Your task to perform on an android device: turn off translation in the chrome app Image 0: 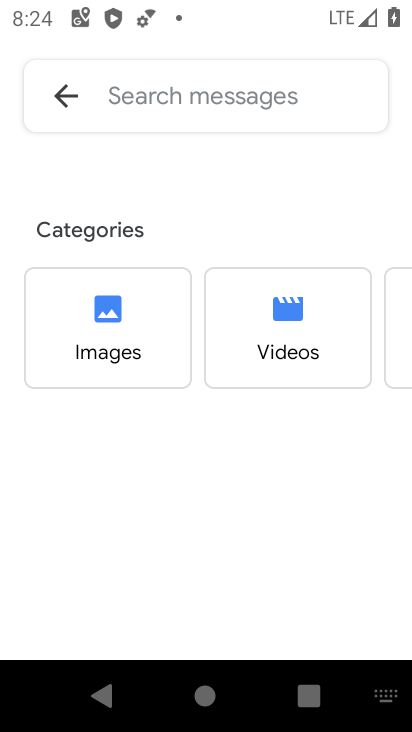
Step 0: press home button
Your task to perform on an android device: turn off translation in the chrome app Image 1: 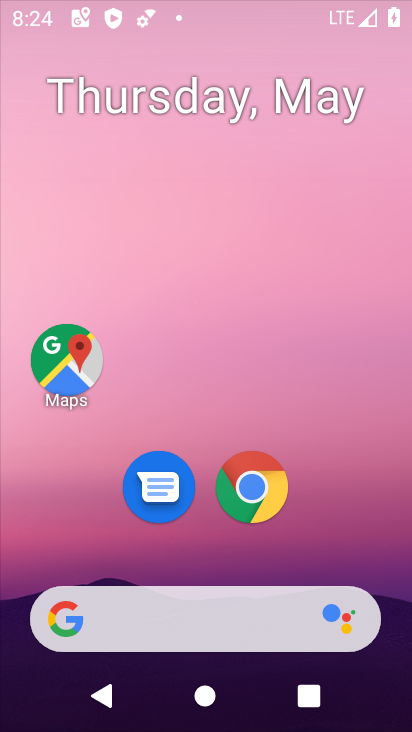
Step 1: drag from (186, 574) to (275, 106)
Your task to perform on an android device: turn off translation in the chrome app Image 2: 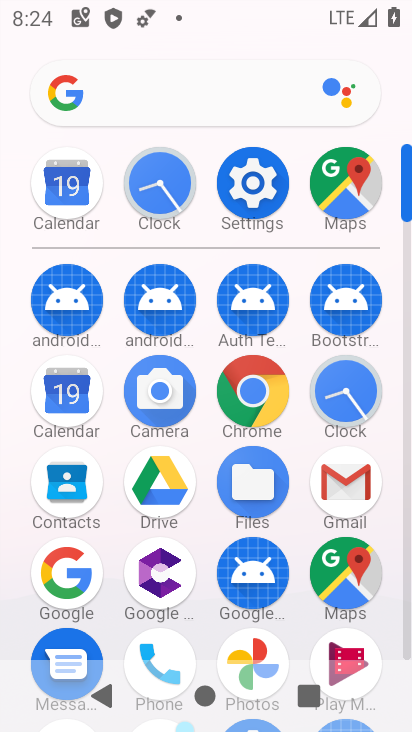
Step 2: click (247, 384)
Your task to perform on an android device: turn off translation in the chrome app Image 3: 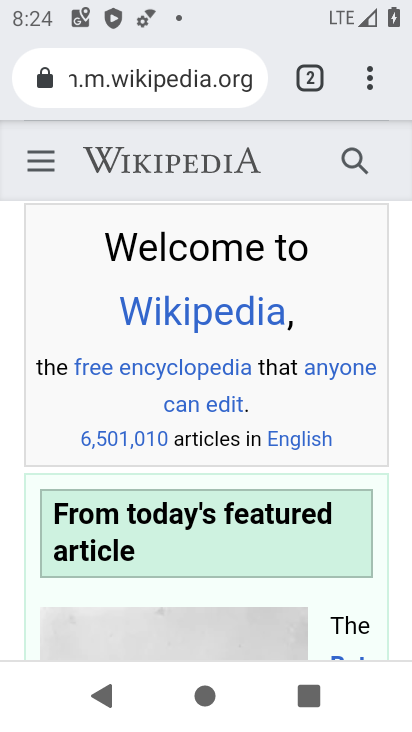
Step 3: drag from (218, 425) to (409, 110)
Your task to perform on an android device: turn off translation in the chrome app Image 4: 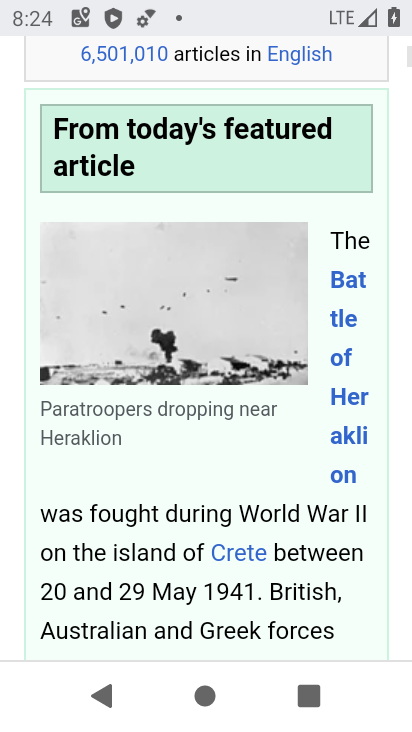
Step 4: click (370, 72)
Your task to perform on an android device: turn off translation in the chrome app Image 5: 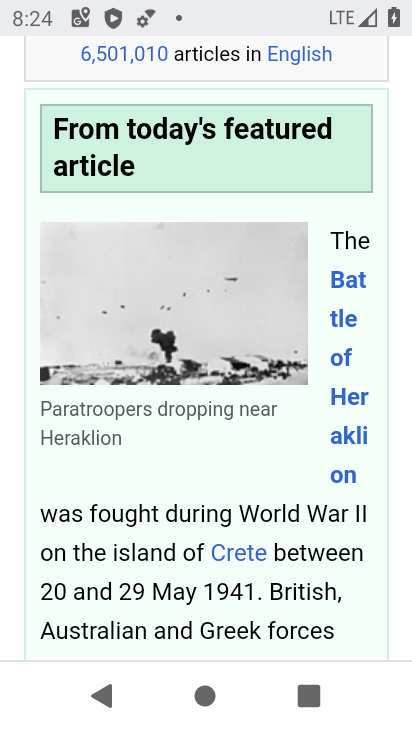
Step 5: drag from (369, 87) to (376, 514)
Your task to perform on an android device: turn off translation in the chrome app Image 6: 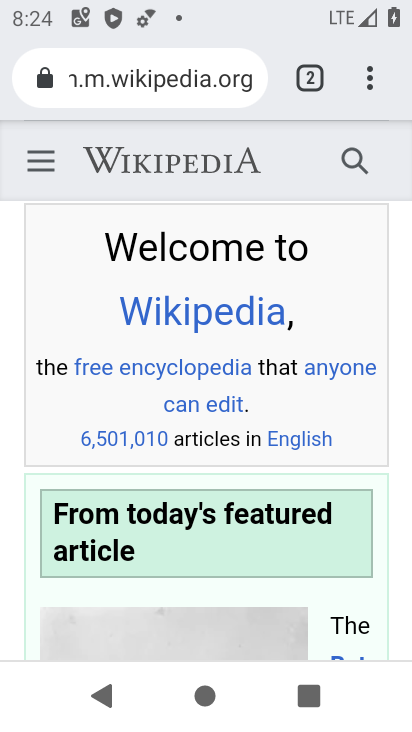
Step 6: click (377, 74)
Your task to perform on an android device: turn off translation in the chrome app Image 7: 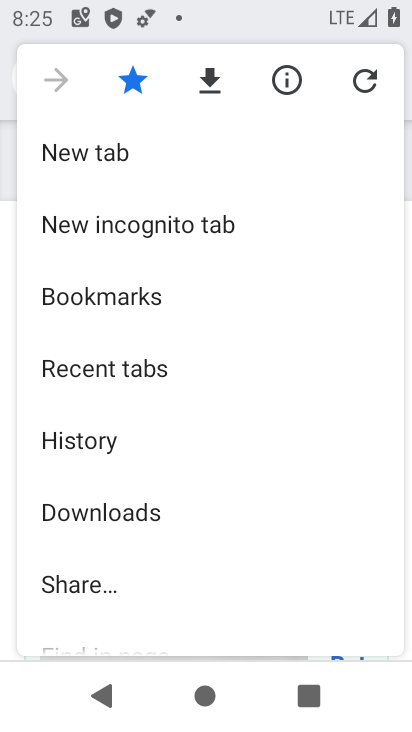
Step 7: drag from (145, 360) to (267, 60)
Your task to perform on an android device: turn off translation in the chrome app Image 8: 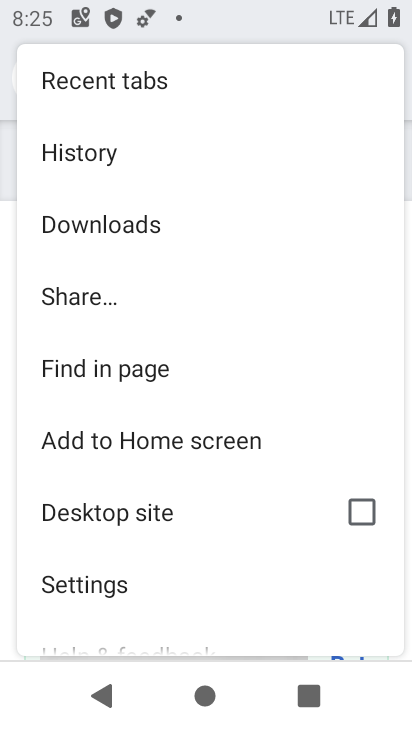
Step 8: click (117, 595)
Your task to perform on an android device: turn off translation in the chrome app Image 9: 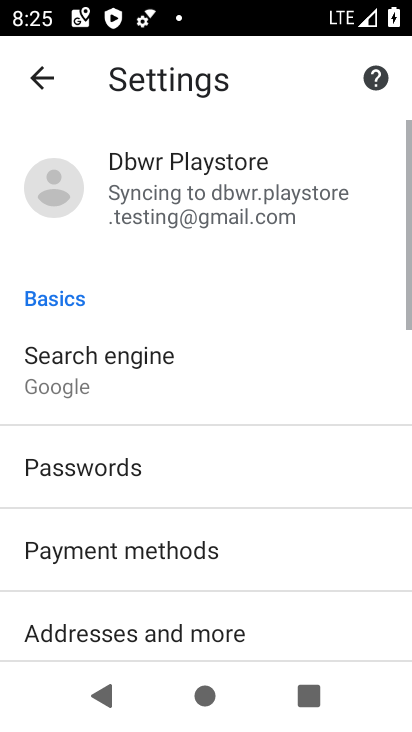
Step 9: drag from (146, 578) to (327, 4)
Your task to perform on an android device: turn off translation in the chrome app Image 10: 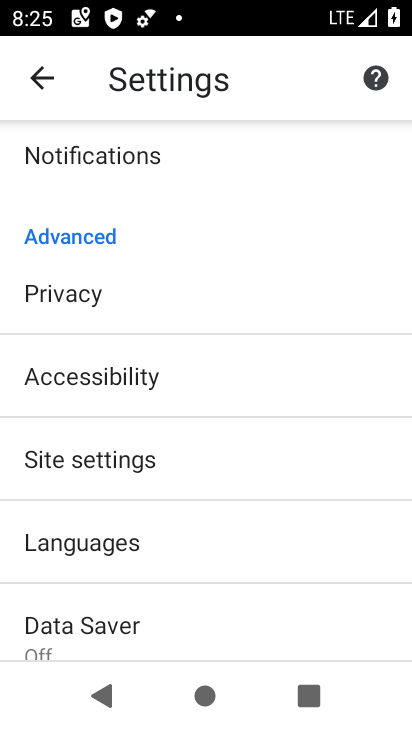
Step 10: click (146, 549)
Your task to perform on an android device: turn off translation in the chrome app Image 11: 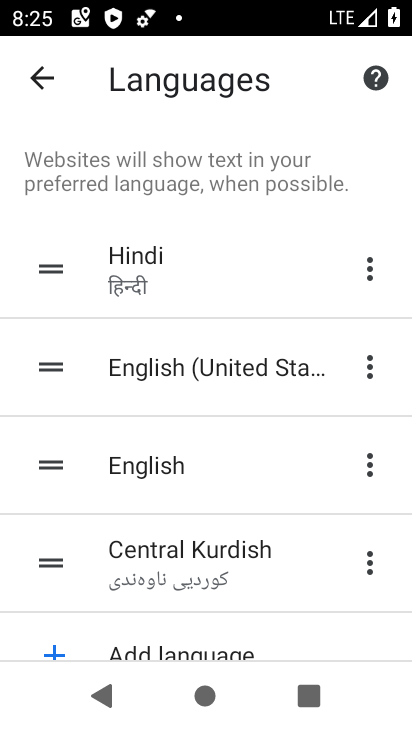
Step 11: task complete